Your task to perform on an android device: change alarm snooze length Image 0: 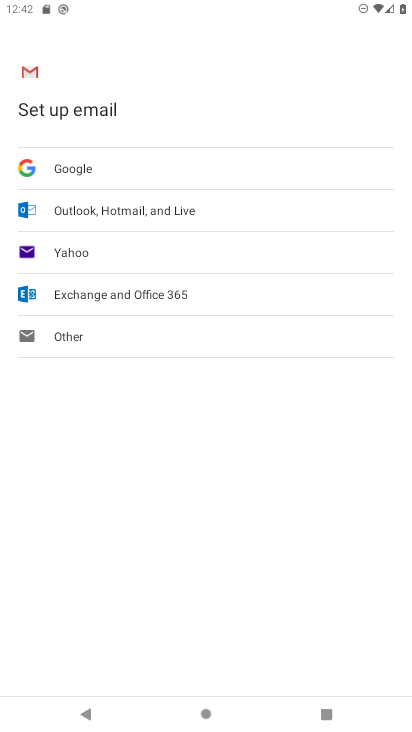
Step 0: press home button
Your task to perform on an android device: change alarm snooze length Image 1: 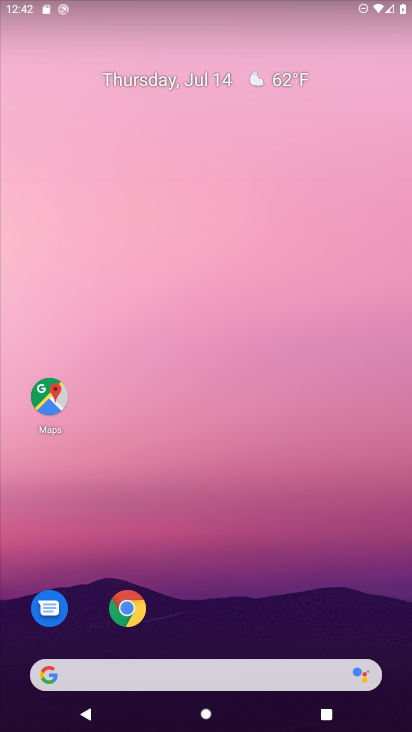
Step 1: drag from (230, 714) to (233, 98)
Your task to perform on an android device: change alarm snooze length Image 2: 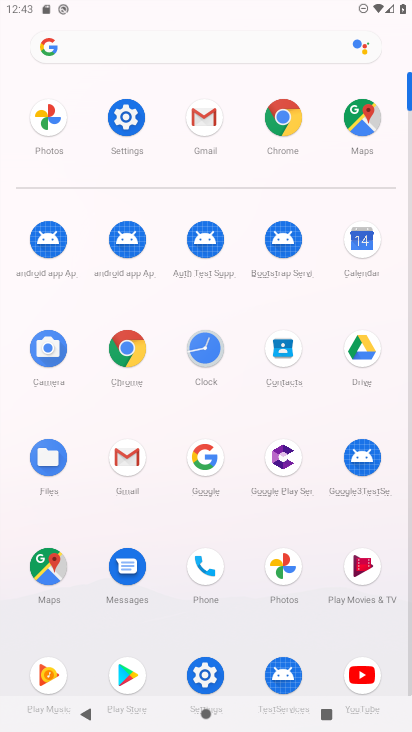
Step 2: click (205, 353)
Your task to perform on an android device: change alarm snooze length Image 3: 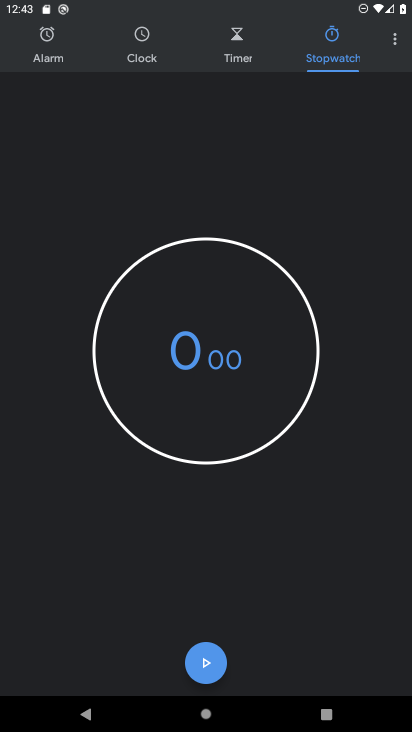
Step 3: click (392, 41)
Your task to perform on an android device: change alarm snooze length Image 4: 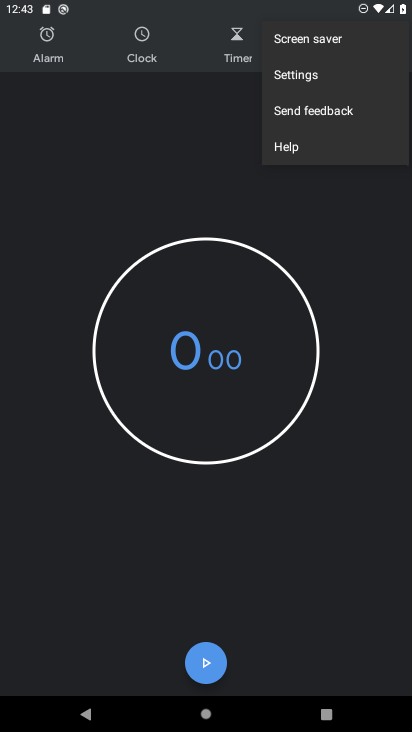
Step 4: click (288, 78)
Your task to perform on an android device: change alarm snooze length Image 5: 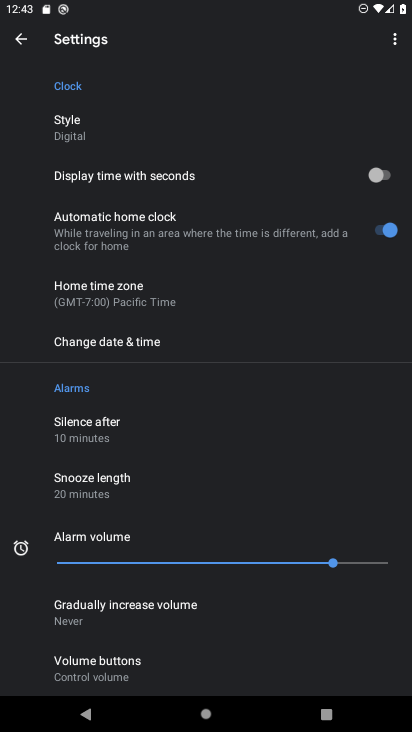
Step 5: click (93, 481)
Your task to perform on an android device: change alarm snooze length Image 6: 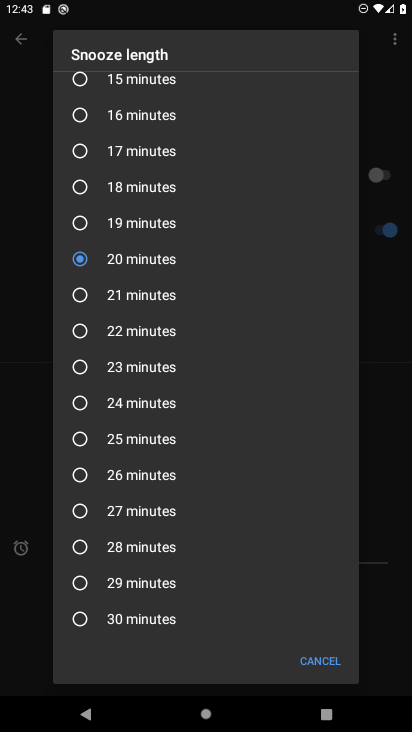
Step 6: click (76, 510)
Your task to perform on an android device: change alarm snooze length Image 7: 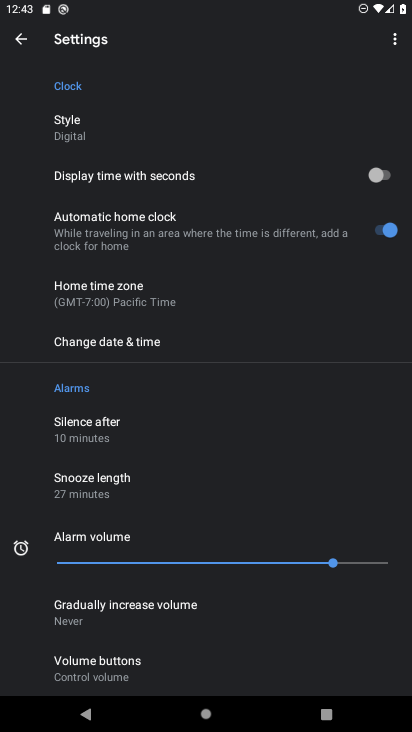
Step 7: task complete